Your task to perform on an android device: Go to Yahoo.com Image 0: 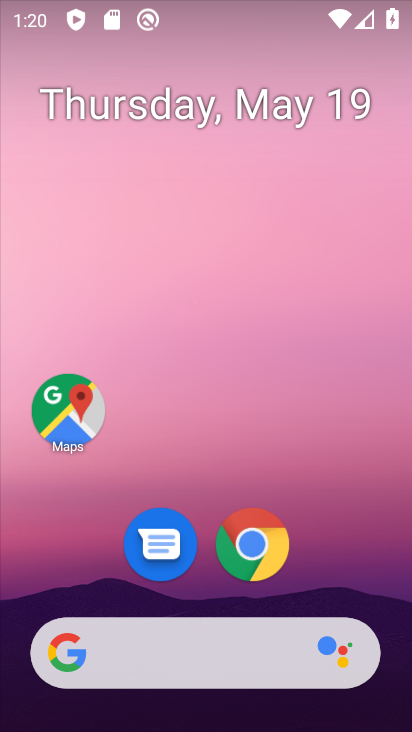
Step 0: press home button
Your task to perform on an android device: Go to Yahoo.com Image 1: 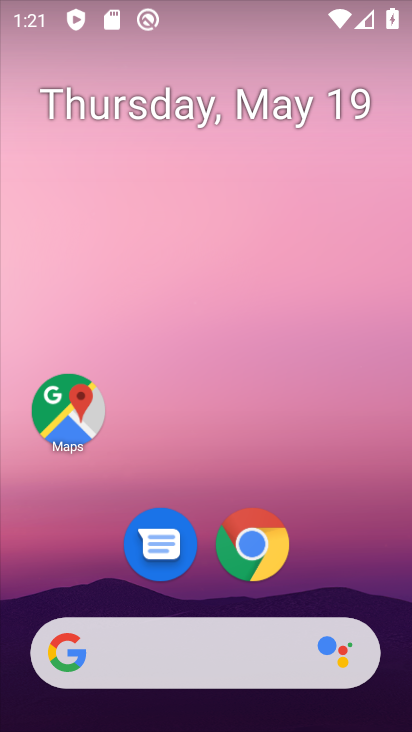
Step 1: click (263, 552)
Your task to perform on an android device: Go to Yahoo.com Image 2: 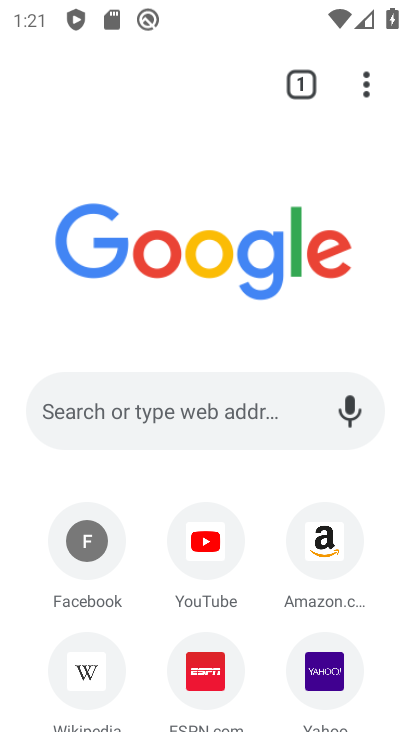
Step 2: drag from (186, 304) to (208, 120)
Your task to perform on an android device: Go to Yahoo.com Image 3: 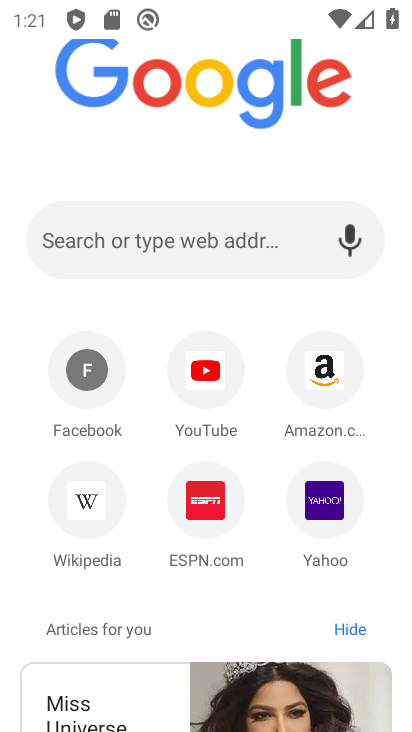
Step 3: click (319, 504)
Your task to perform on an android device: Go to Yahoo.com Image 4: 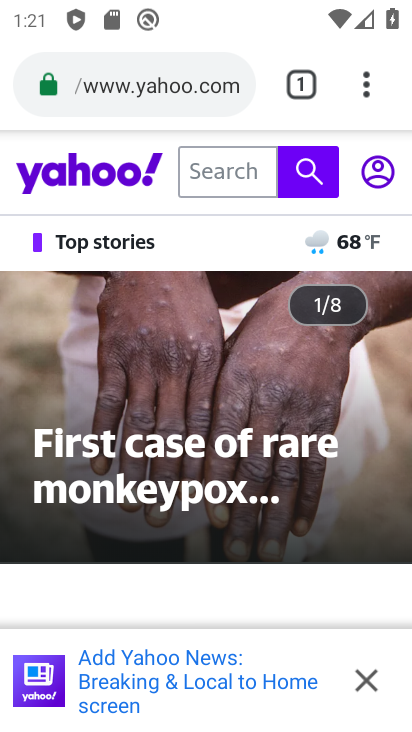
Step 4: task complete